Your task to perform on an android device: Go to internet settings Image 0: 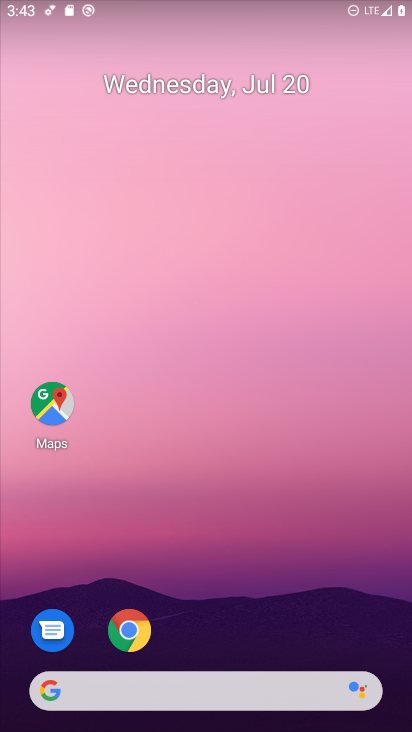
Step 0: drag from (198, 634) to (262, 123)
Your task to perform on an android device: Go to internet settings Image 1: 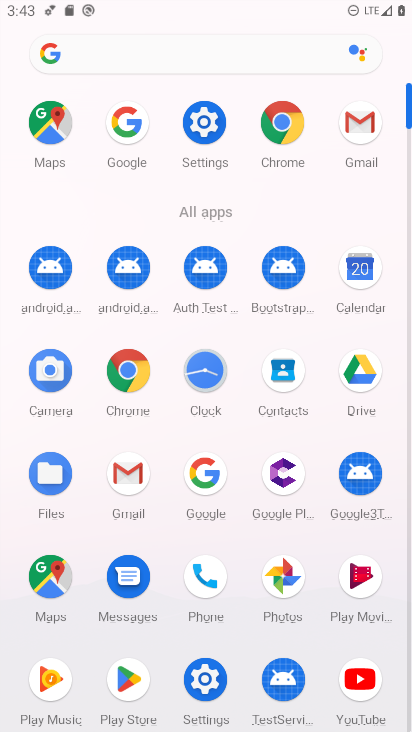
Step 1: click (202, 116)
Your task to perform on an android device: Go to internet settings Image 2: 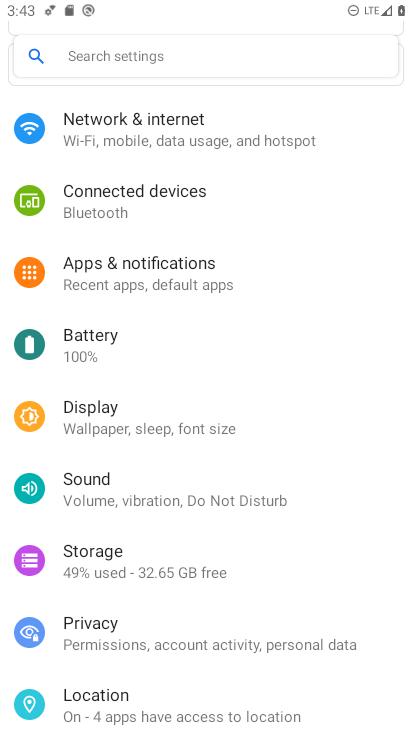
Step 2: click (149, 132)
Your task to perform on an android device: Go to internet settings Image 3: 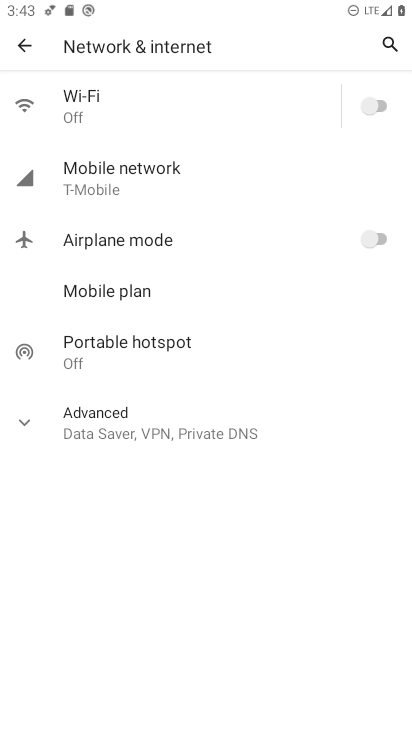
Step 3: click (33, 415)
Your task to perform on an android device: Go to internet settings Image 4: 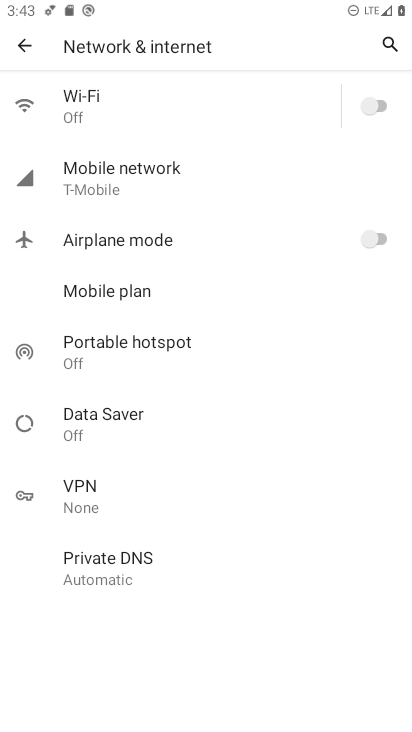
Step 4: task complete